Your task to perform on an android device: add a contact Image 0: 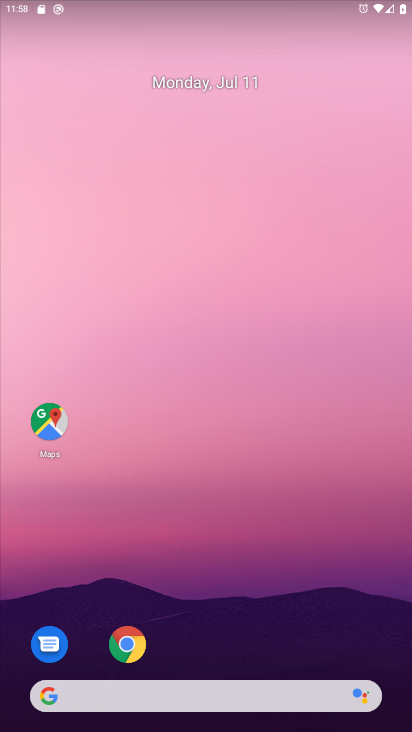
Step 0: drag from (243, 590) to (232, 84)
Your task to perform on an android device: add a contact Image 1: 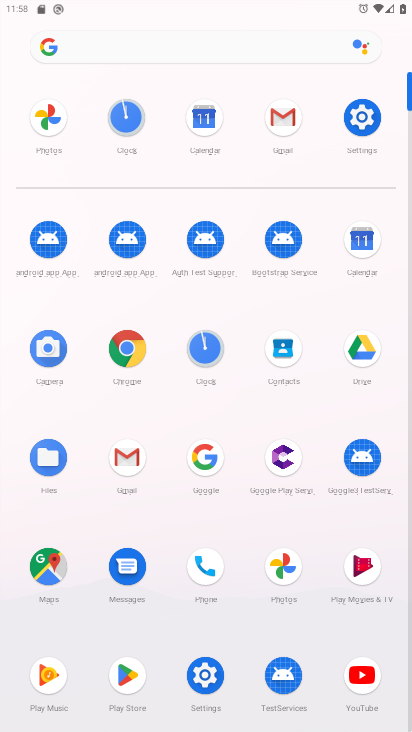
Step 1: click (283, 358)
Your task to perform on an android device: add a contact Image 2: 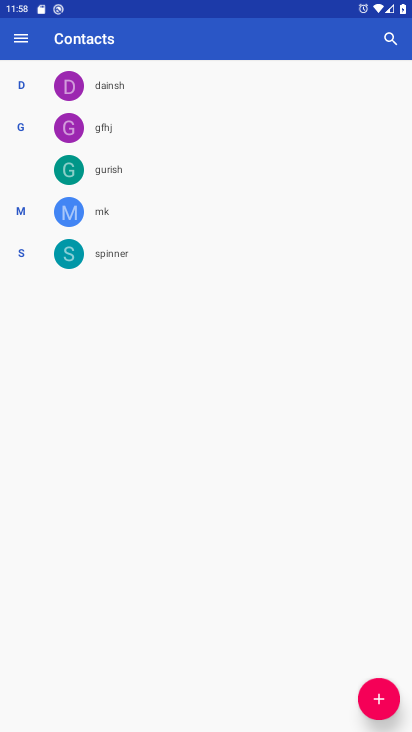
Step 2: click (375, 698)
Your task to perform on an android device: add a contact Image 3: 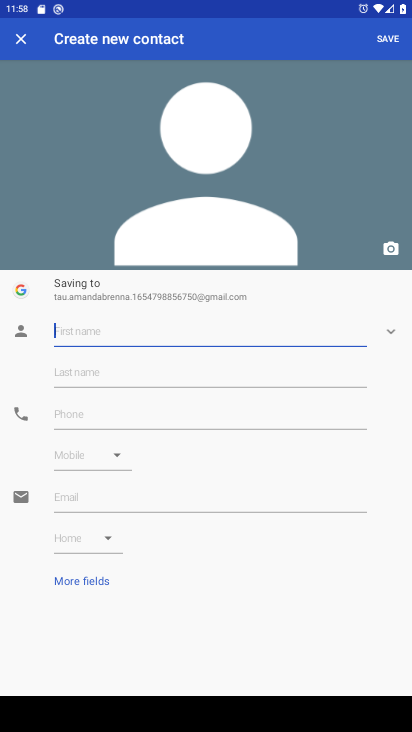
Step 3: type "jk"
Your task to perform on an android device: add a contact Image 4: 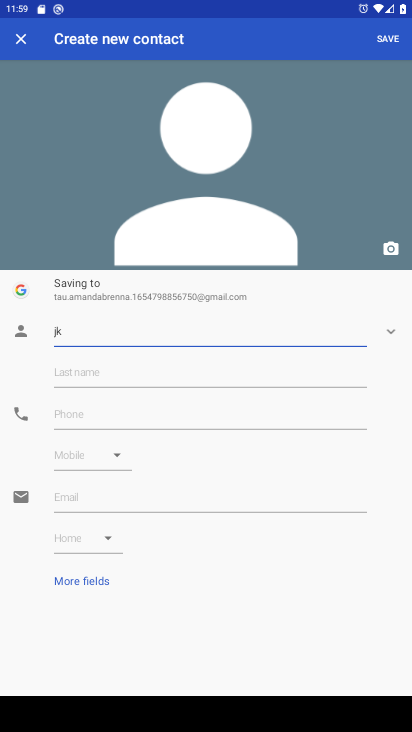
Step 4: click (149, 421)
Your task to perform on an android device: add a contact Image 5: 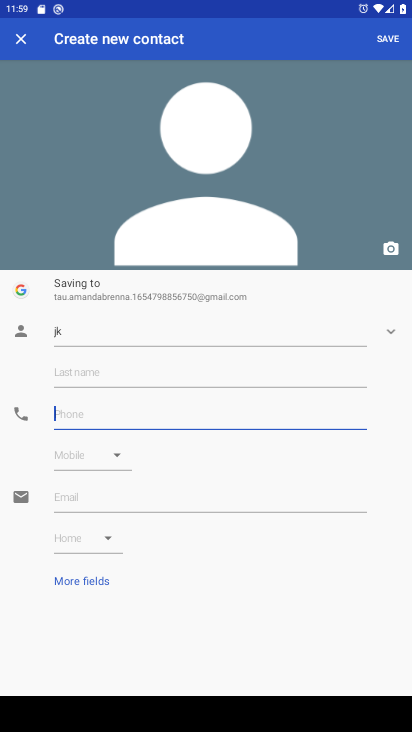
Step 5: type "8907654321"
Your task to perform on an android device: add a contact Image 6: 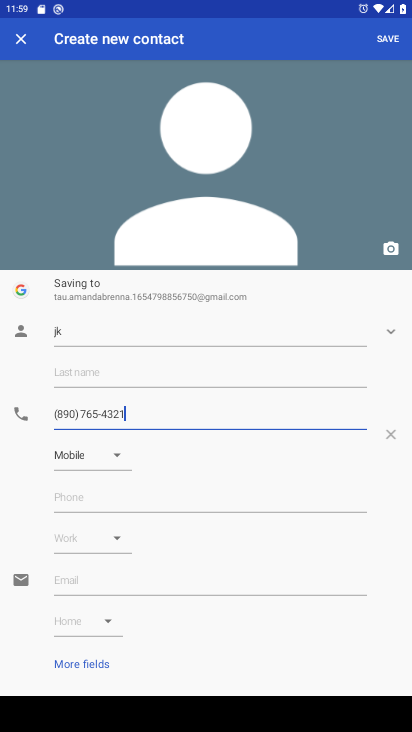
Step 6: click (384, 33)
Your task to perform on an android device: add a contact Image 7: 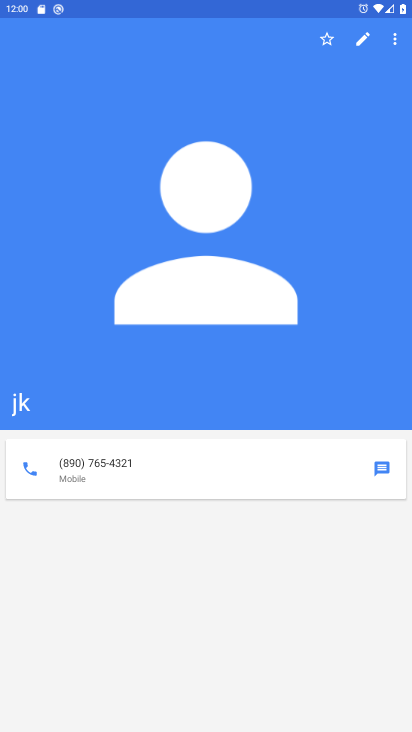
Step 7: task complete